Your task to perform on an android device: turn off location history Image 0: 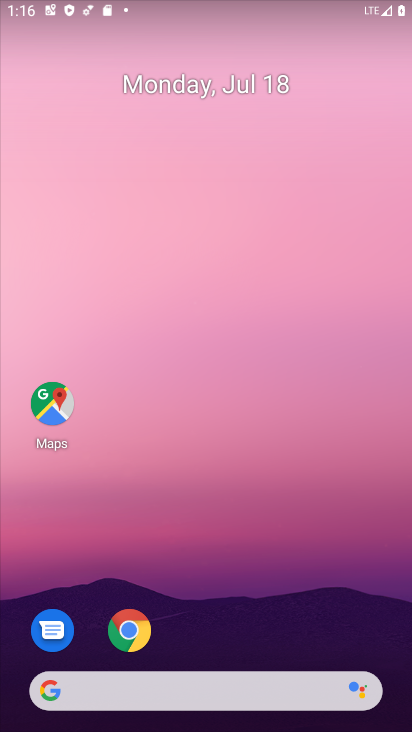
Step 0: drag from (247, 570) to (236, 3)
Your task to perform on an android device: turn off location history Image 1: 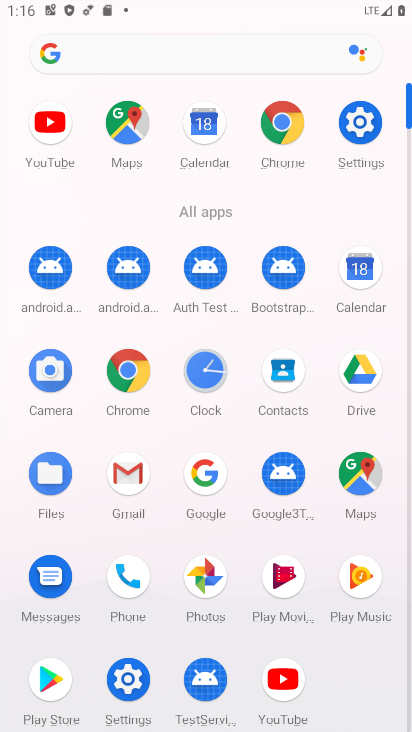
Step 1: click (358, 113)
Your task to perform on an android device: turn off location history Image 2: 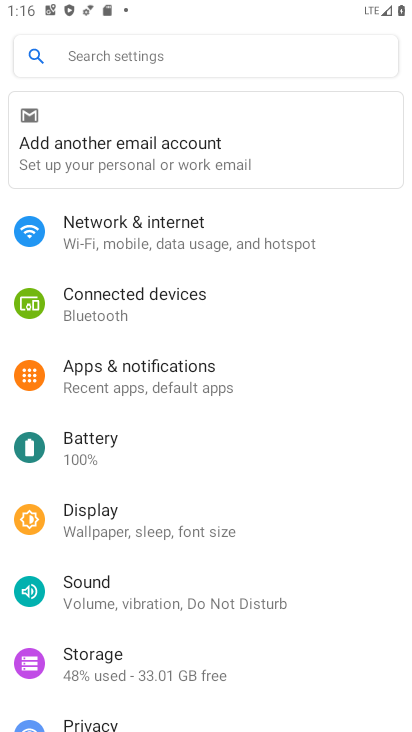
Step 2: drag from (176, 559) to (185, 302)
Your task to perform on an android device: turn off location history Image 3: 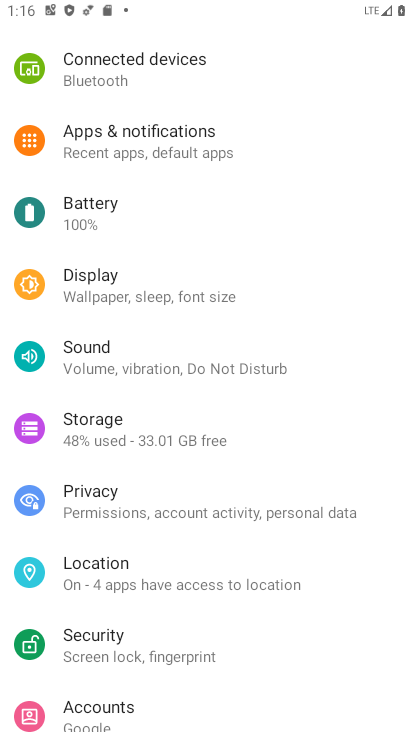
Step 3: click (202, 568)
Your task to perform on an android device: turn off location history Image 4: 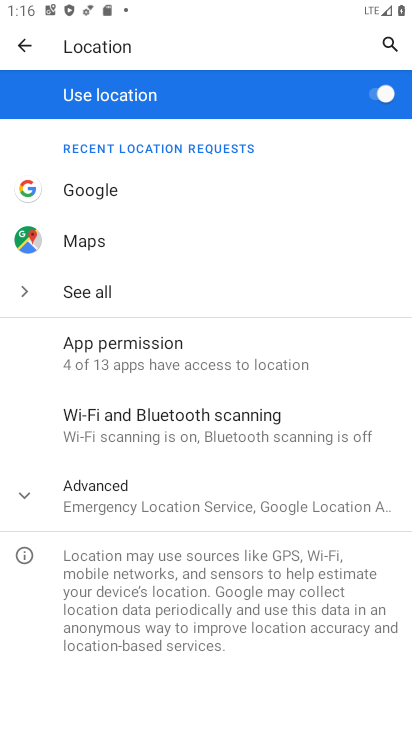
Step 4: click (28, 494)
Your task to perform on an android device: turn off location history Image 5: 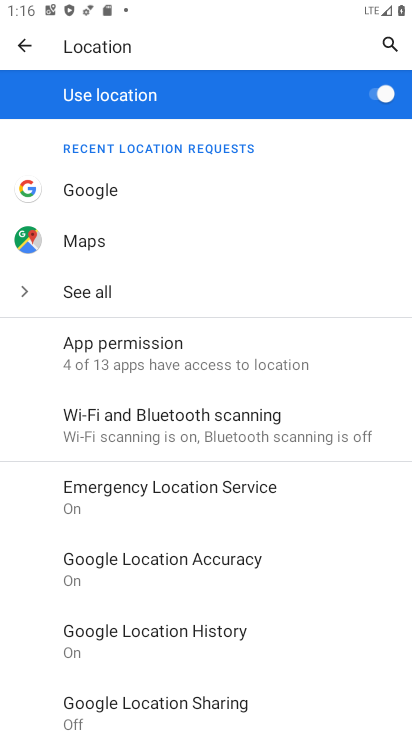
Step 5: click (166, 631)
Your task to perform on an android device: turn off location history Image 6: 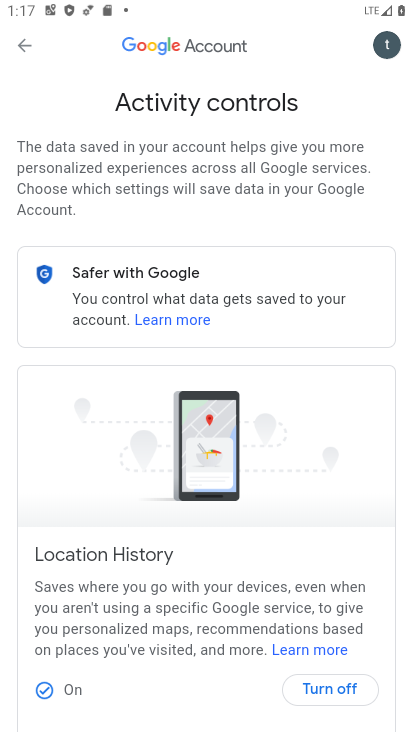
Step 6: click (307, 689)
Your task to perform on an android device: turn off location history Image 7: 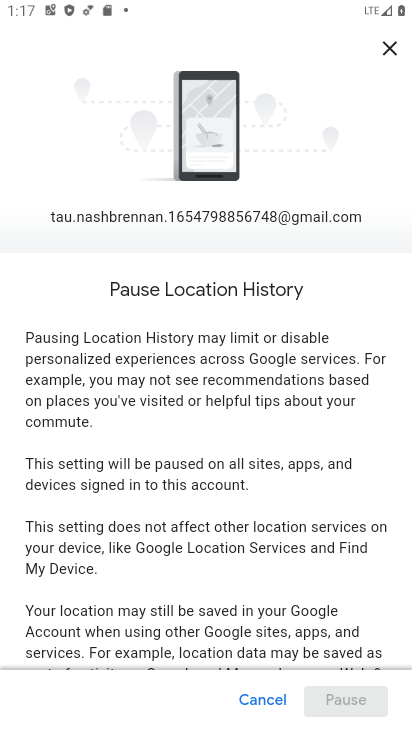
Step 7: drag from (325, 597) to (337, 39)
Your task to perform on an android device: turn off location history Image 8: 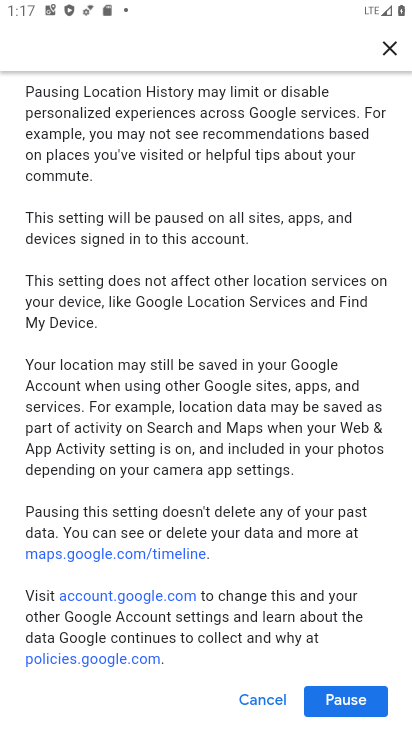
Step 8: click (353, 703)
Your task to perform on an android device: turn off location history Image 9: 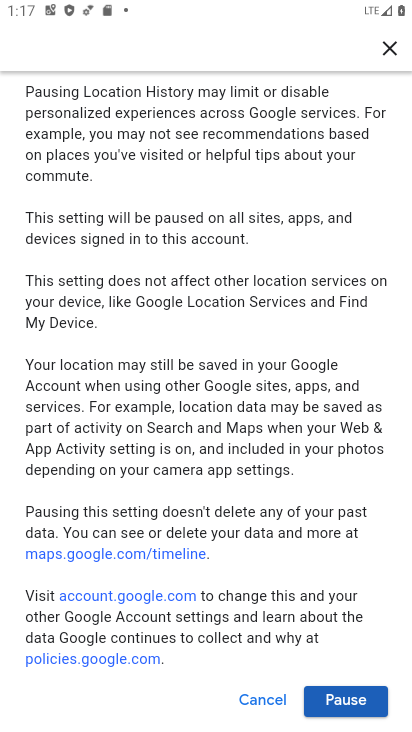
Step 9: click (375, 696)
Your task to perform on an android device: turn off location history Image 10: 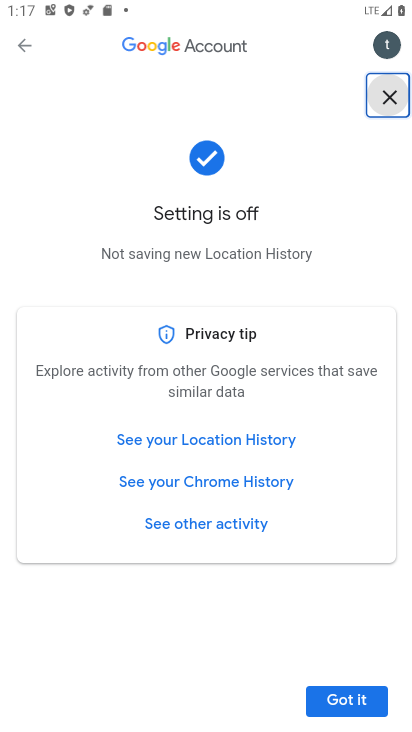
Step 10: click (377, 700)
Your task to perform on an android device: turn off location history Image 11: 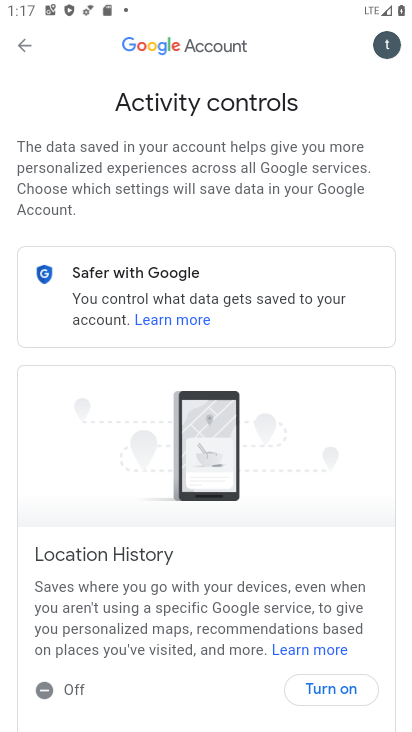
Step 11: task complete